Your task to perform on an android device: Go to Maps Image 0: 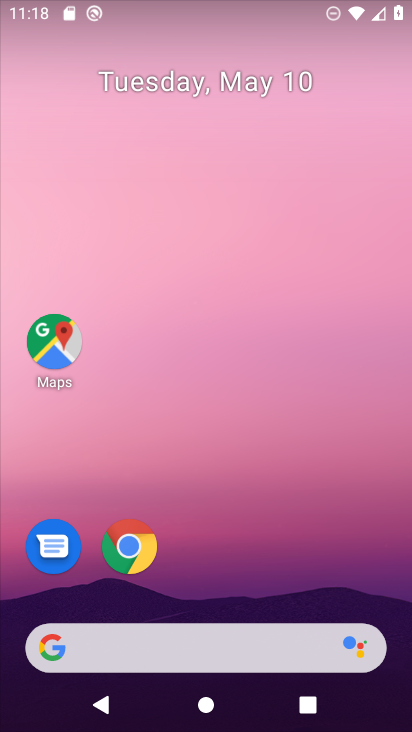
Step 0: click (60, 355)
Your task to perform on an android device: Go to Maps Image 1: 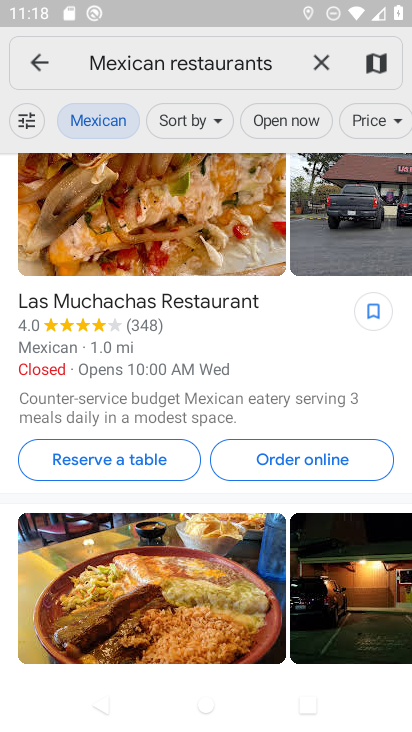
Step 1: task complete